Your task to perform on an android device: open device folders in google photos Image 0: 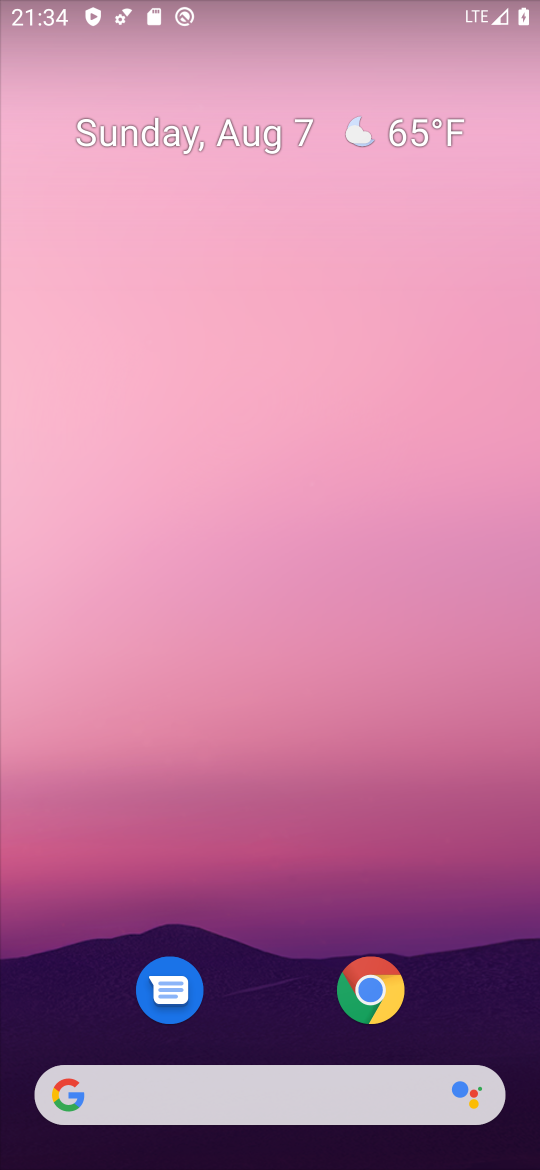
Step 0: drag from (281, 947) to (314, 1)
Your task to perform on an android device: open device folders in google photos Image 1: 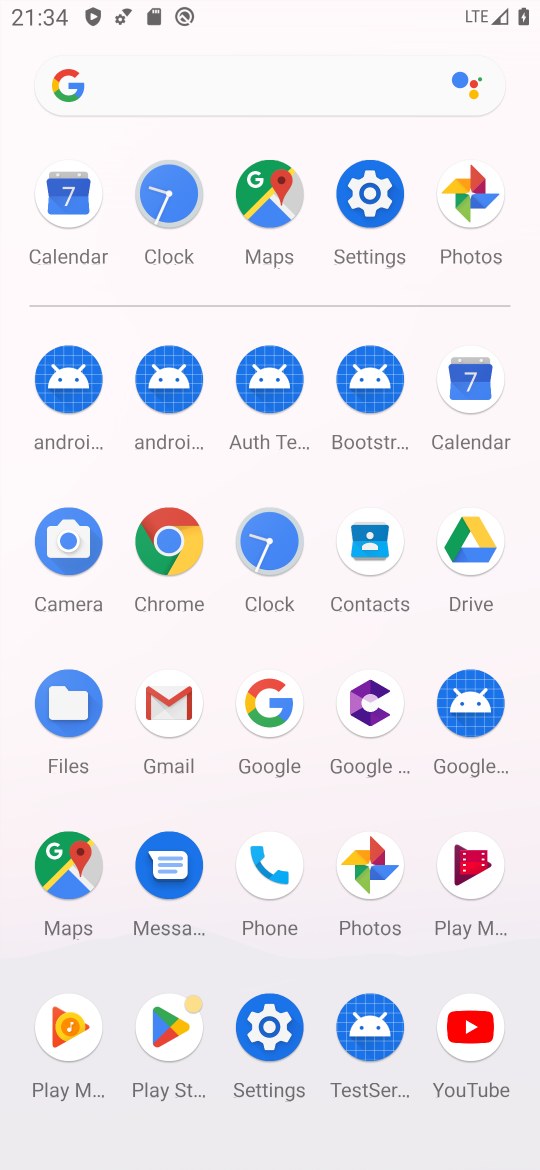
Step 1: click (470, 201)
Your task to perform on an android device: open device folders in google photos Image 2: 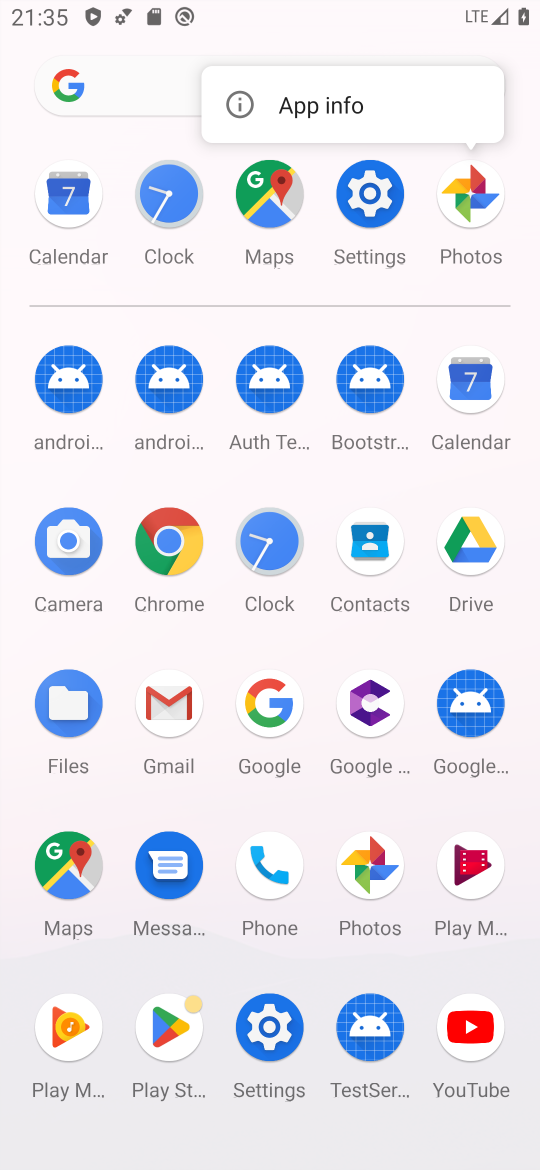
Step 2: click (470, 201)
Your task to perform on an android device: open device folders in google photos Image 3: 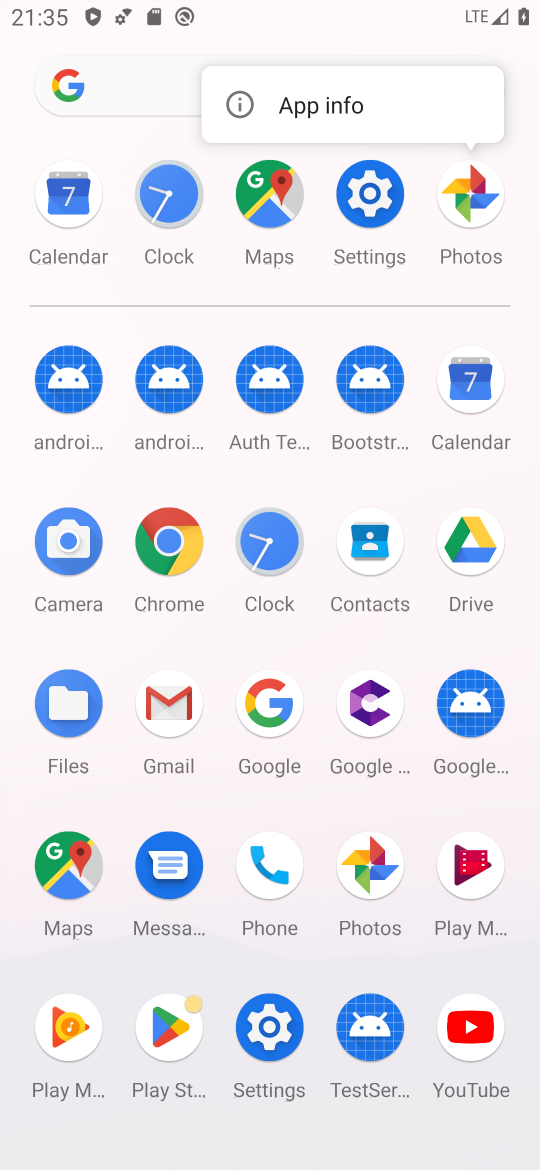
Step 3: click (470, 201)
Your task to perform on an android device: open device folders in google photos Image 4: 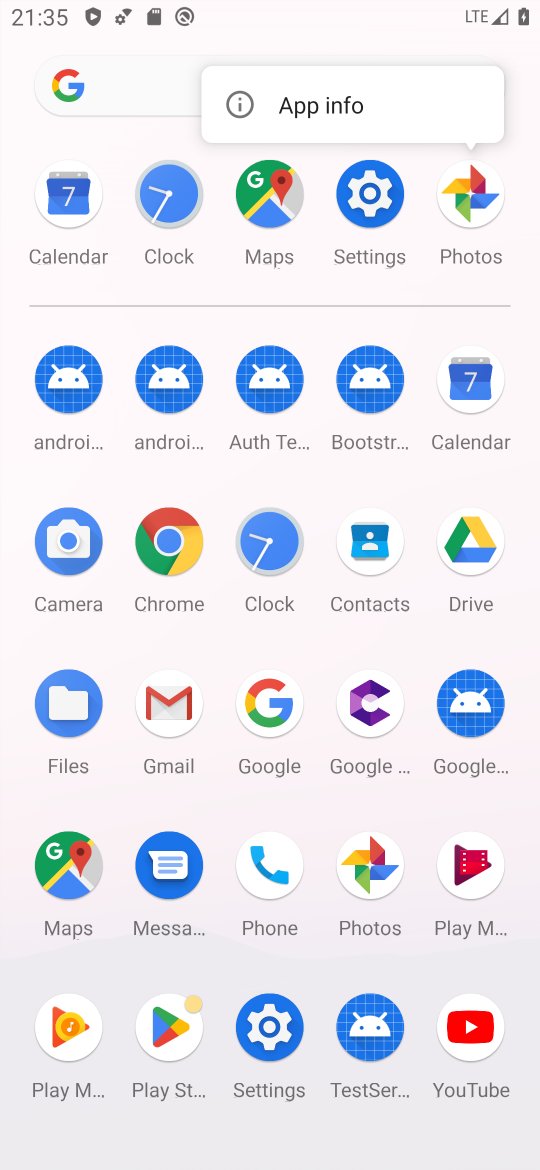
Step 4: click (472, 205)
Your task to perform on an android device: open device folders in google photos Image 5: 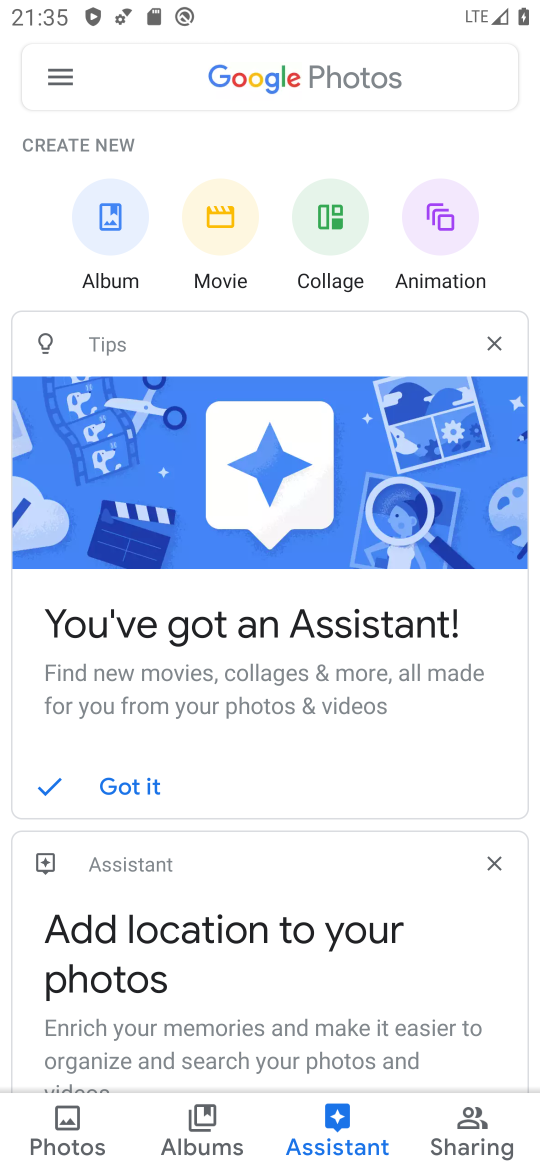
Step 5: click (55, 74)
Your task to perform on an android device: open device folders in google photos Image 6: 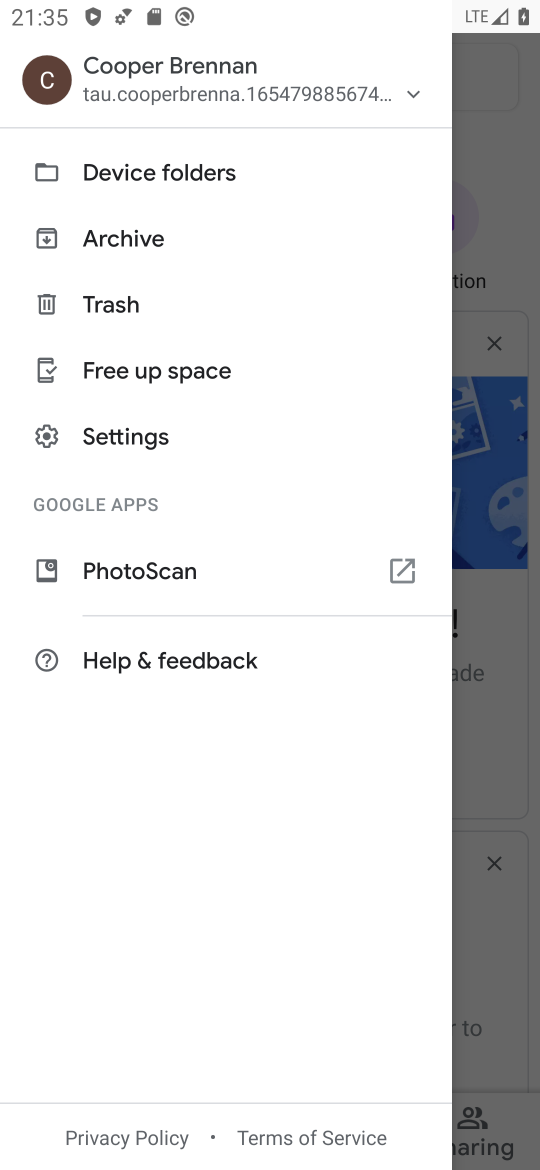
Step 6: click (192, 175)
Your task to perform on an android device: open device folders in google photos Image 7: 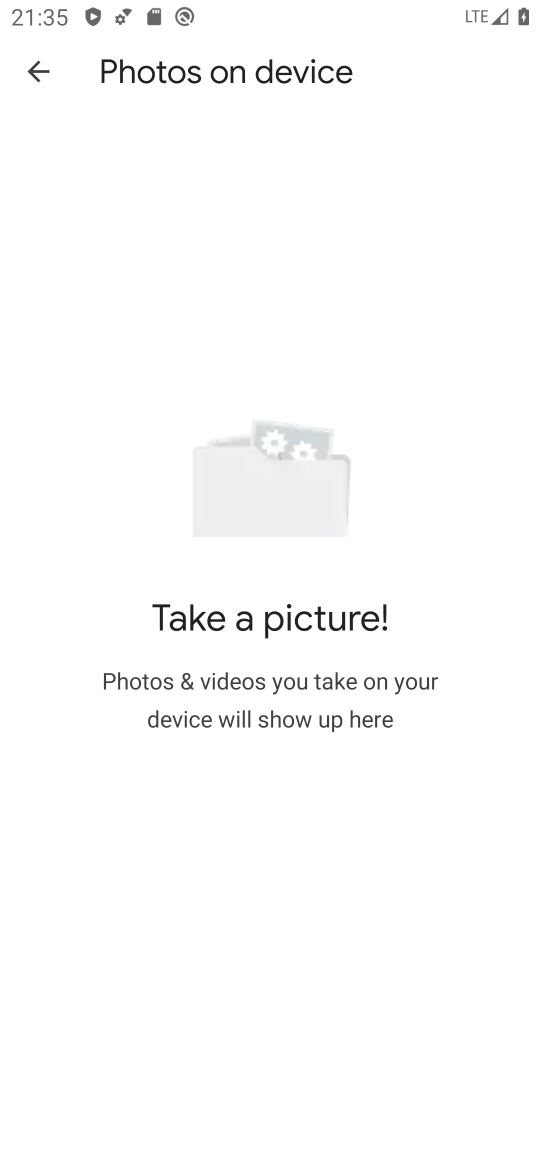
Step 7: task complete